Your task to perform on an android device: change alarm snooze length Image 0: 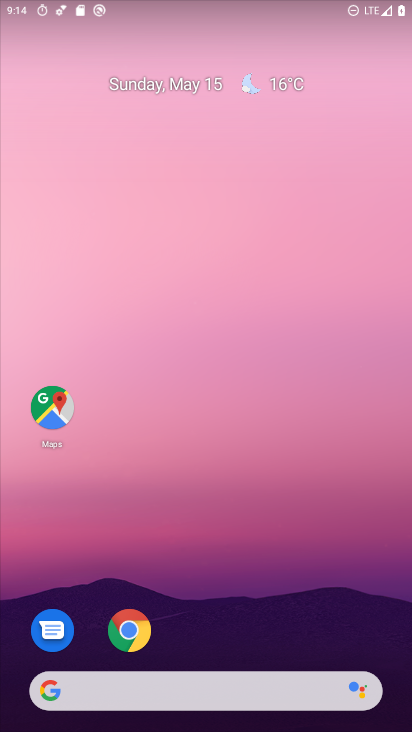
Step 0: drag from (154, 656) to (207, 1)
Your task to perform on an android device: change alarm snooze length Image 1: 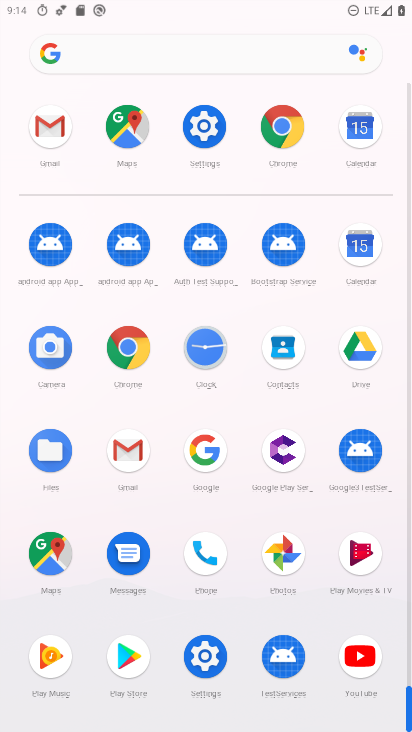
Step 1: click (193, 340)
Your task to perform on an android device: change alarm snooze length Image 2: 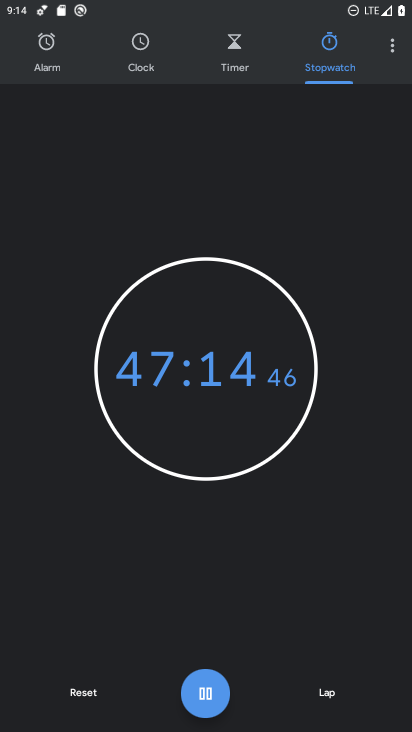
Step 2: click (78, 695)
Your task to perform on an android device: change alarm snooze length Image 3: 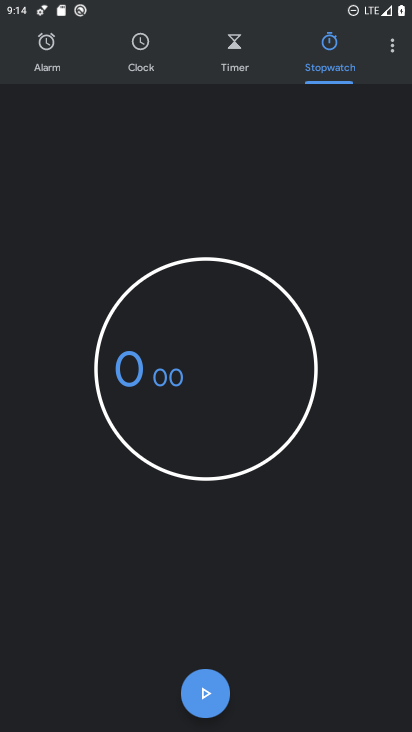
Step 3: click (391, 54)
Your task to perform on an android device: change alarm snooze length Image 4: 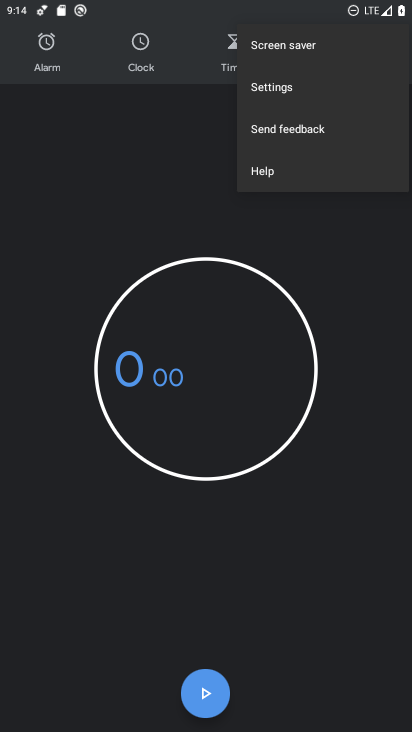
Step 4: click (297, 88)
Your task to perform on an android device: change alarm snooze length Image 5: 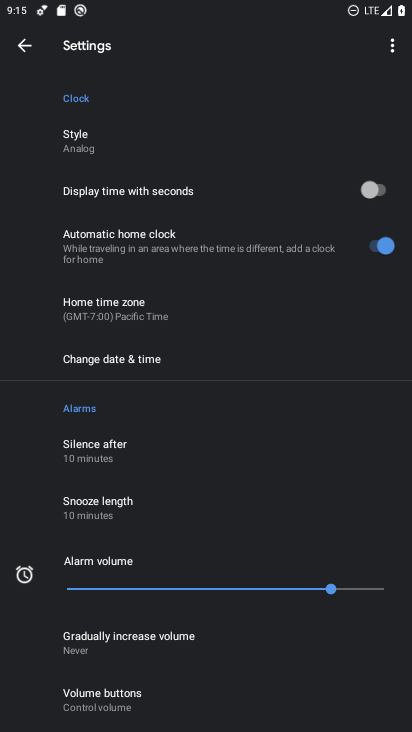
Step 5: click (168, 529)
Your task to perform on an android device: change alarm snooze length Image 6: 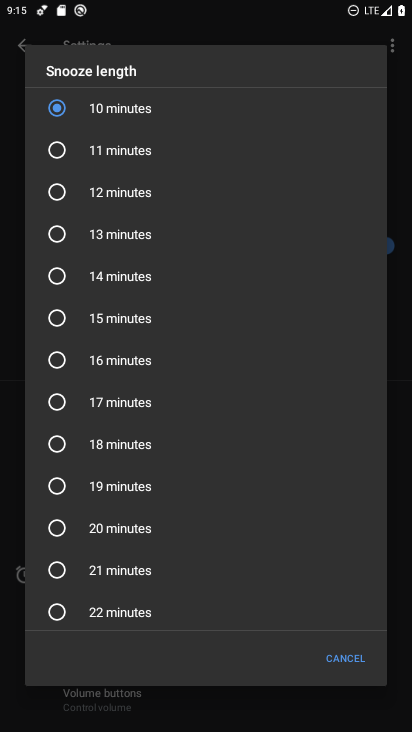
Step 6: click (191, 517)
Your task to perform on an android device: change alarm snooze length Image 7: 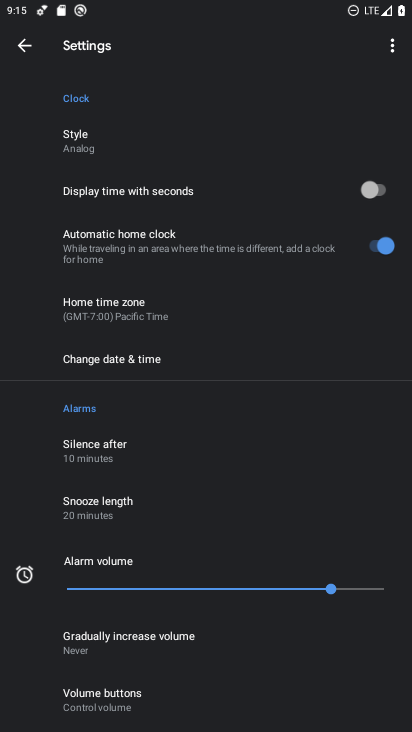
Step 7: task complete